Your task to perform on an android device: create a new album in the google photos Image 0: 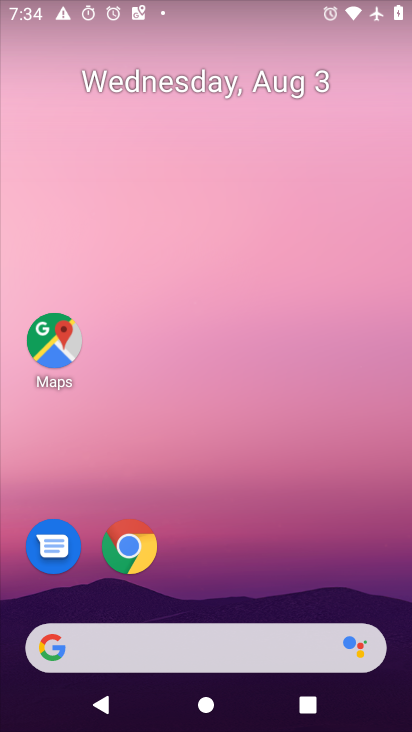
Step 0: drag from (319, 507) to (347, 175)
Your task to perform on an android device: create a new album in the google photos Image 1: 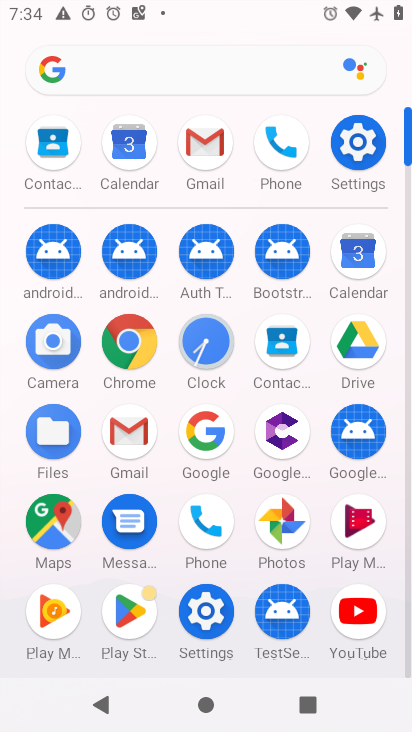
Step 1: click (284, 522)
Your task to perform on an android device: create a new album in the google photos Image 2: 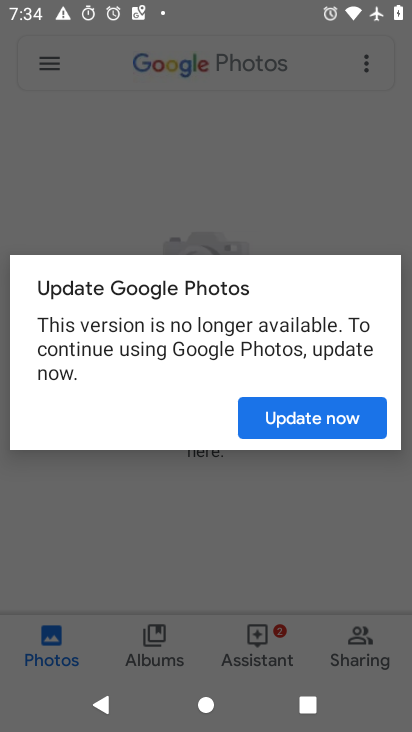
Step 2: click (316, 425)
Your task to perform on an android device: create a new album in the google photos Image 3: 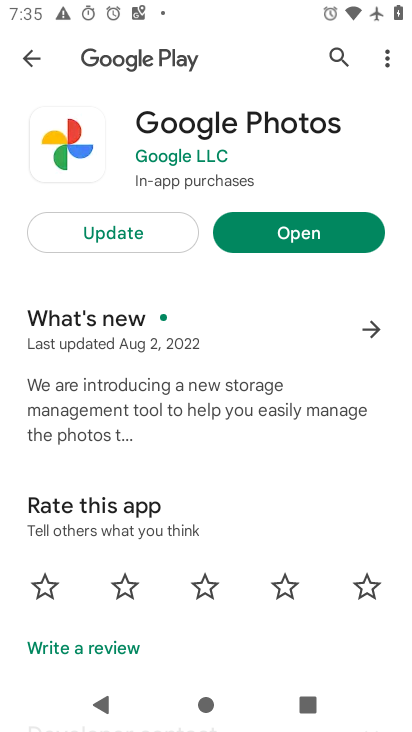
Step 3: click (91, 239)
Your task to perform on an android device: create a new album in the google photos Image 4: 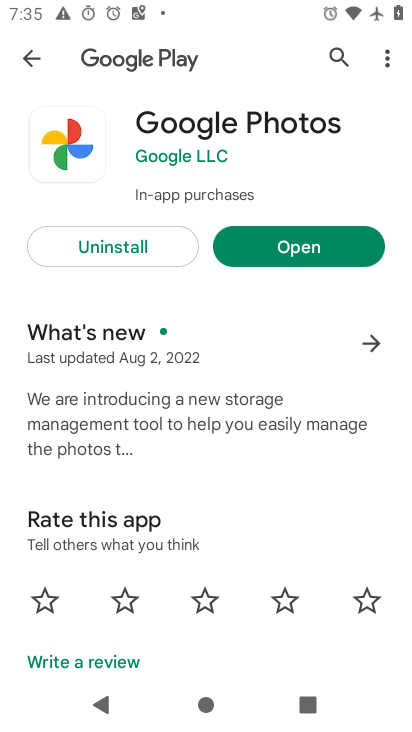
Step 4: click (277, 242)
Your task to perform on an android device: create a new album in the google photos Image 5: 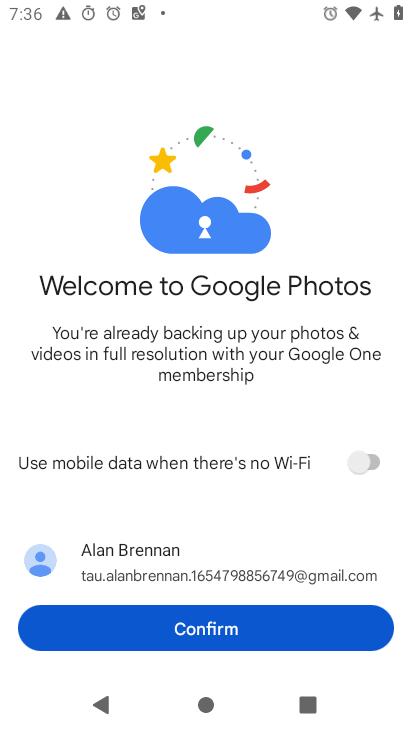
Step 5: click (302, 621)
Your task to perform on an android device: create a new album in the google photos Image 6: 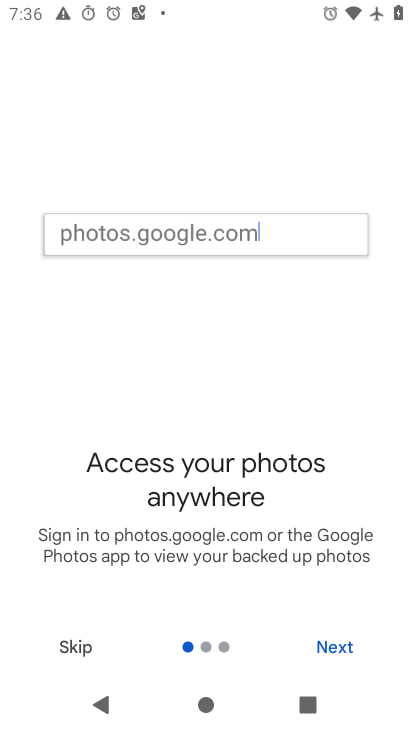
Step 6: click (73, 652)
Your task to perform on an android device: create a new album in the google photos Image 7: 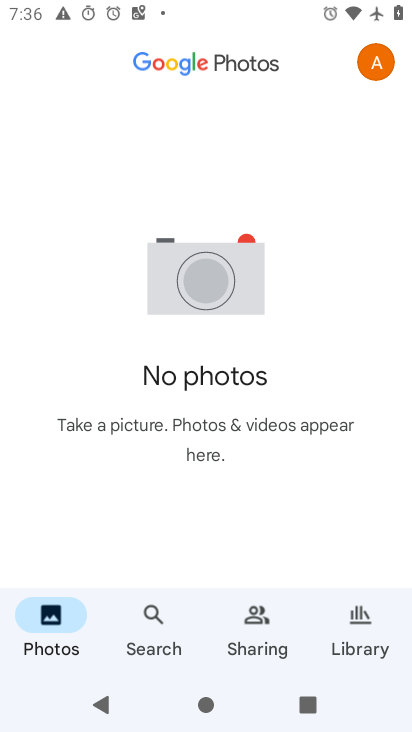
Step 7: task complete